Your task to perform on an android device: open a bookmark in the chrome app Image 0: 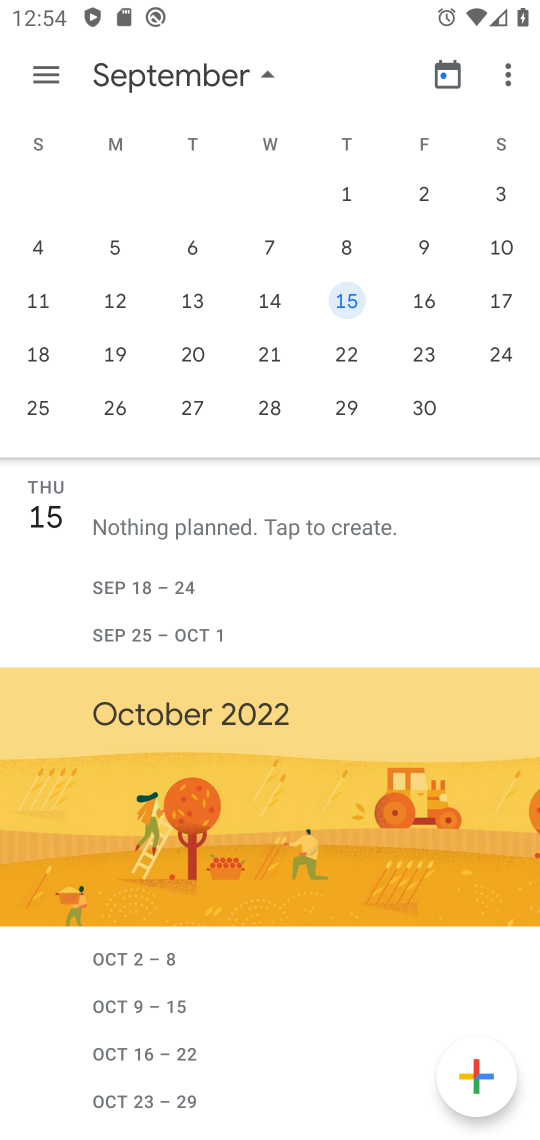
Step 0: drag from (253, 717) to (303, 441)
Your task to perform on an android device: open a bookmark in the chrome app Image 1: 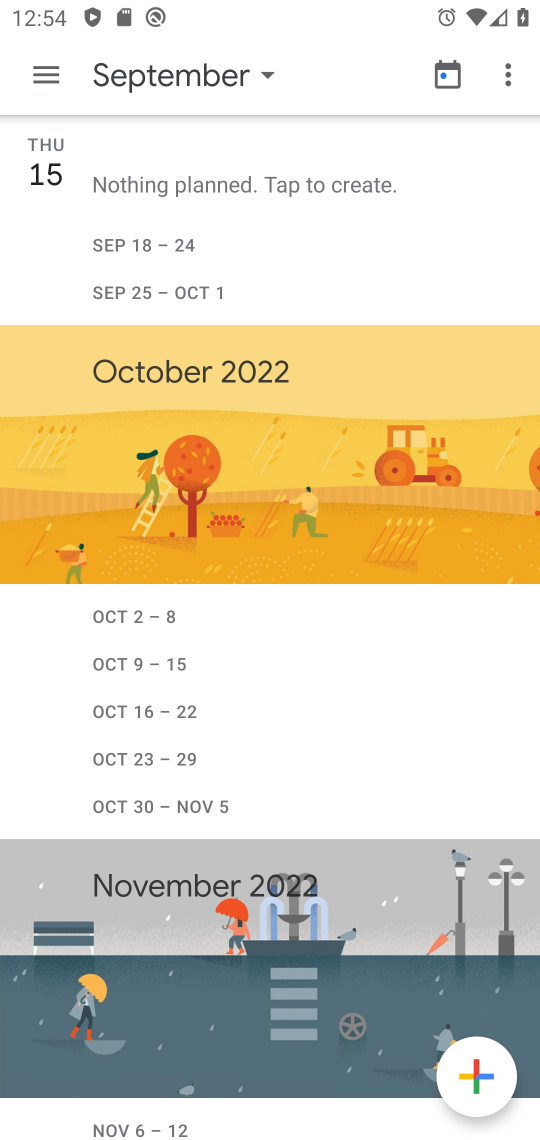
Step 1: press home button
Your task to perform on an android device: open a bookmark in the chrome app Image 2: 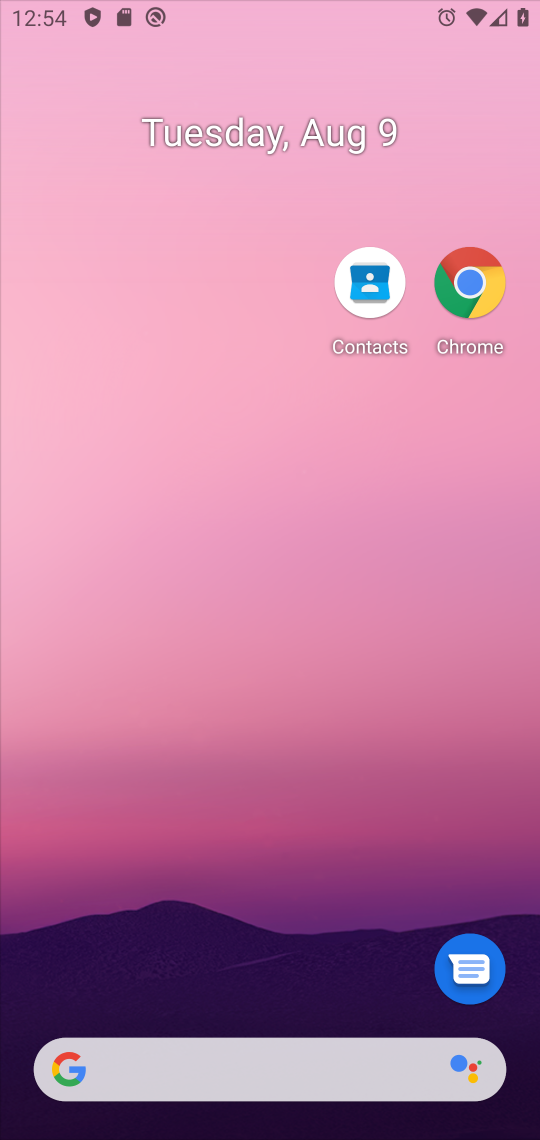
Step 2: drag from (263, 995) to (432, 321)
Your task to perform on an android device: open a bookmark in the chrome app Image 3: 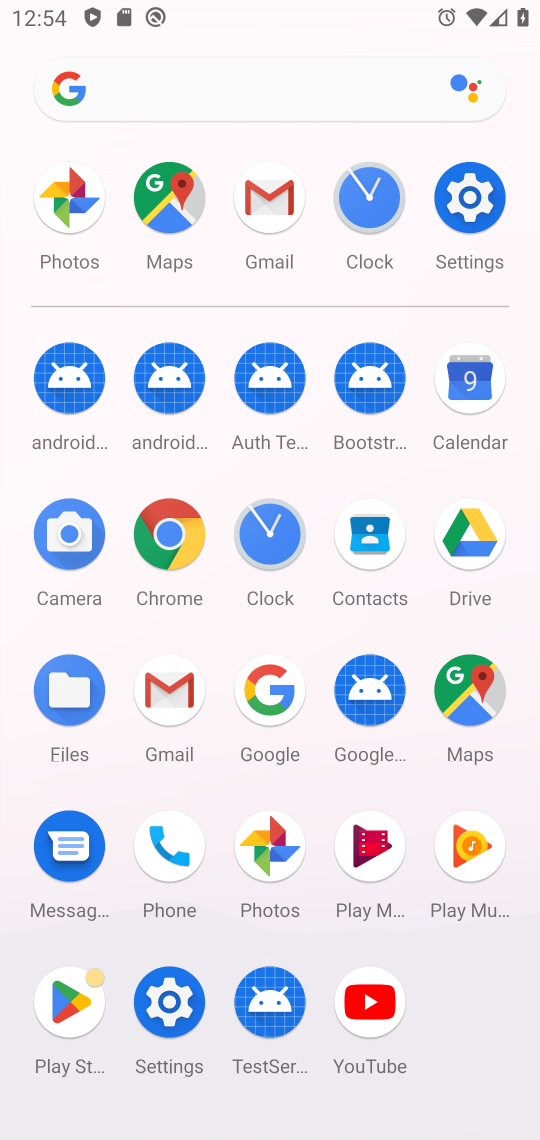
Step 3: click (164, 531)
Your task to perform on an android device: open a bookmark in the chrome app Image 4: 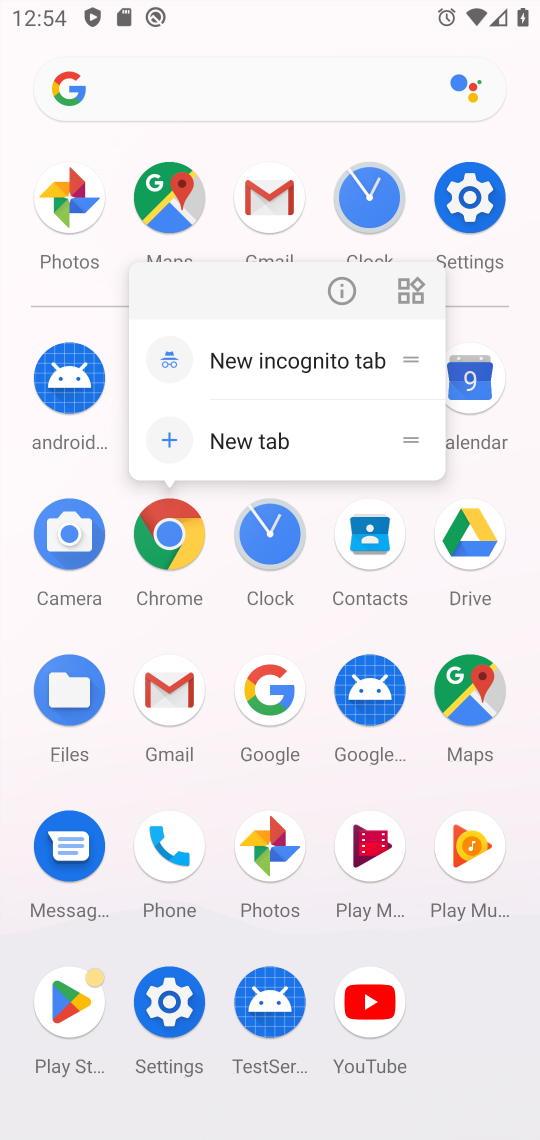
Step 4: click (336, 299)
Your task to perform on an android device: open a bookmark in the chrome app Image 5: 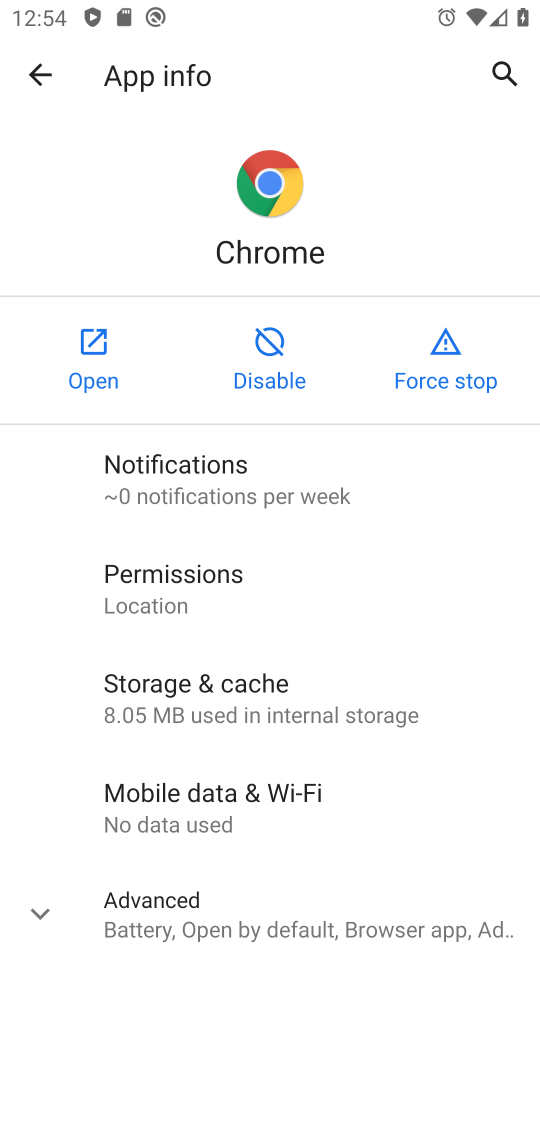
Step 5: click (66, 370)
Your task to perform on an android device: open a bookmark in the chrome app Image 6: 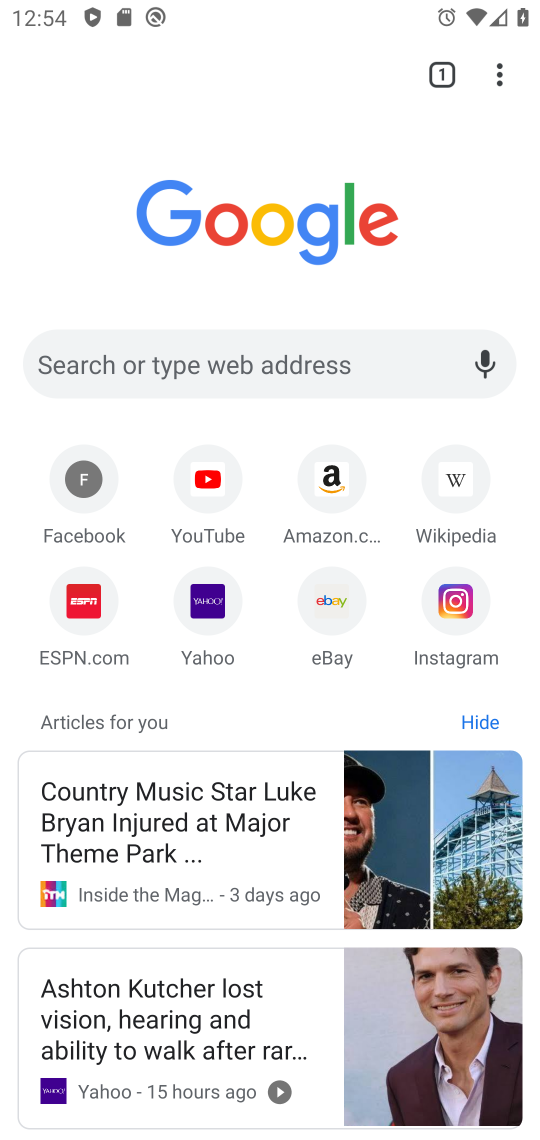
Step 6: drag from (291, 653) to (355, 0)
Your task to perform on an android device: open a bookmark in the chrome app Image 7: 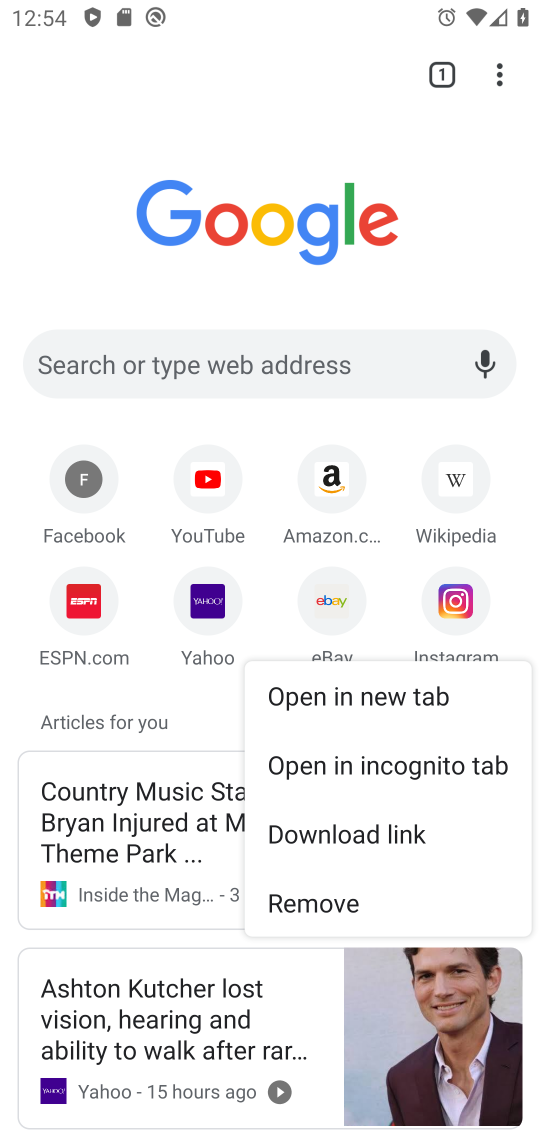
Step 7: click (206, 706)
Your task to perform on an android device: open a bookmark in the chrome app Image 8: 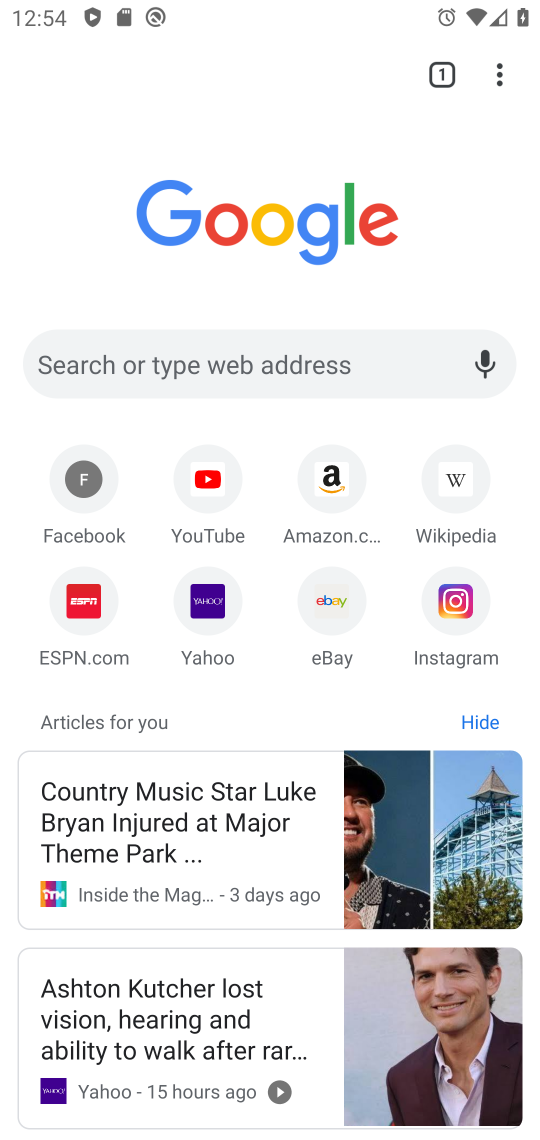
Step 8: drag from (277, 563) to (331, 67)
Your task to perform on an android device: open a bookmark in the chrome app Image 9: 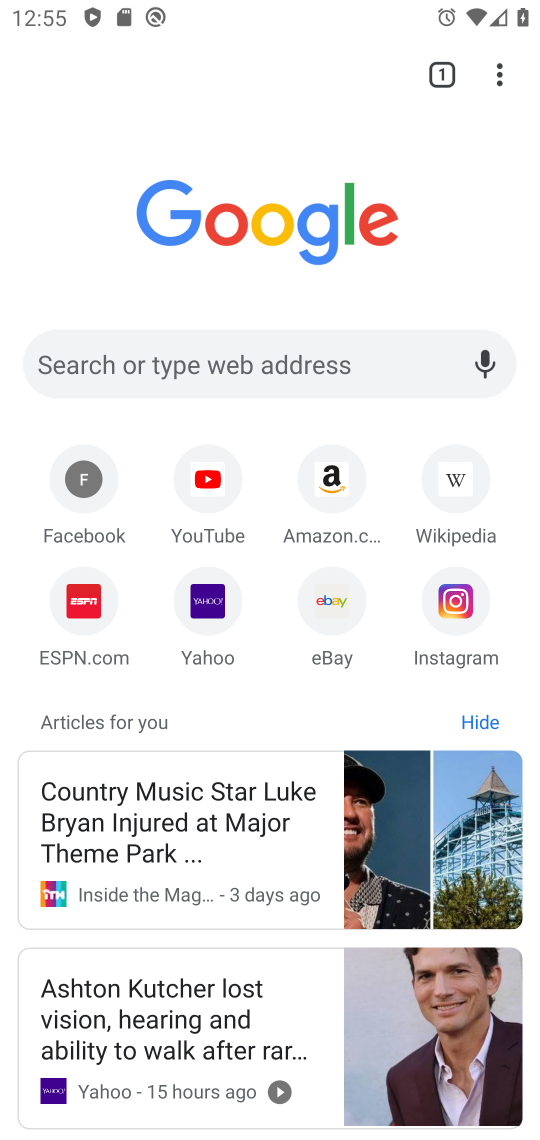
Step 9: drag from (498, 61) to (304, 287)
Your task to perform on an android device: open a bookmark in the chrome app Image 10: 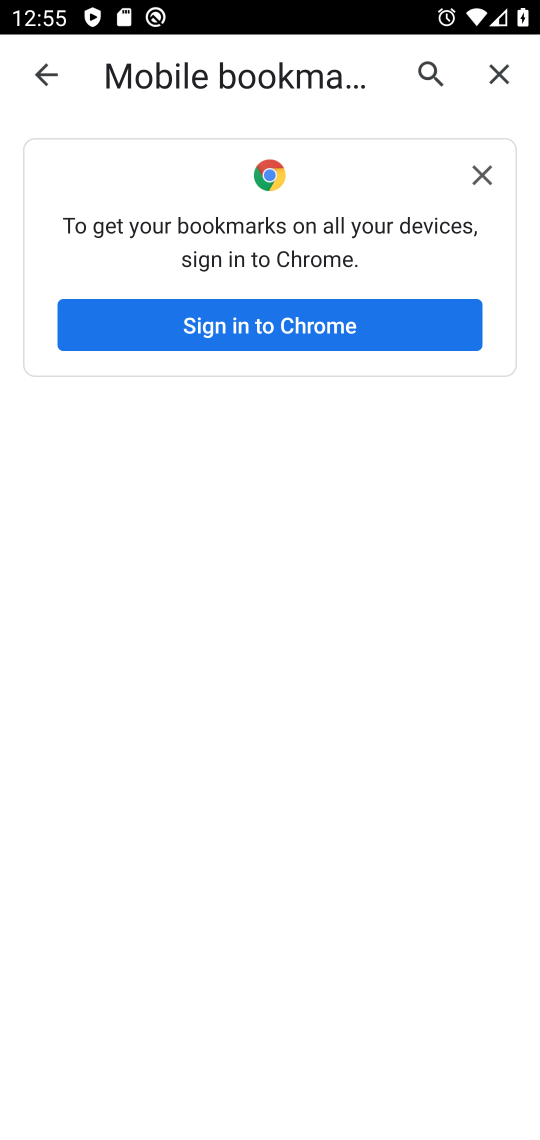
Step 10: drag from (341, 740) to (354, 371)
Your task to perform on an android device: open a bookmark in the chrome app Image 11: 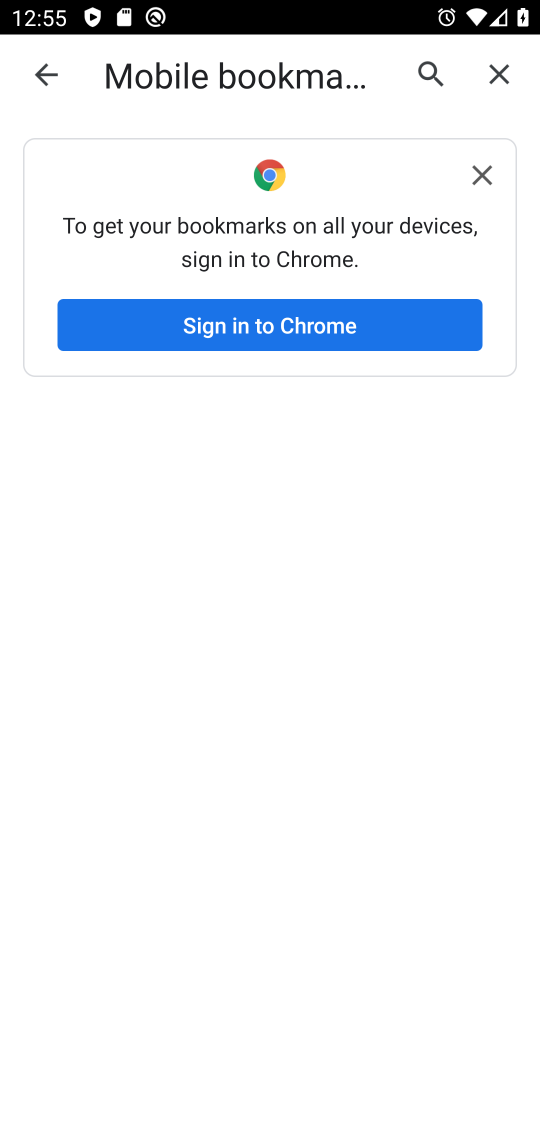
Step 11: click (484, 165)
Your task to perform on an android device: open a bookmark in the chrome app Image 12: 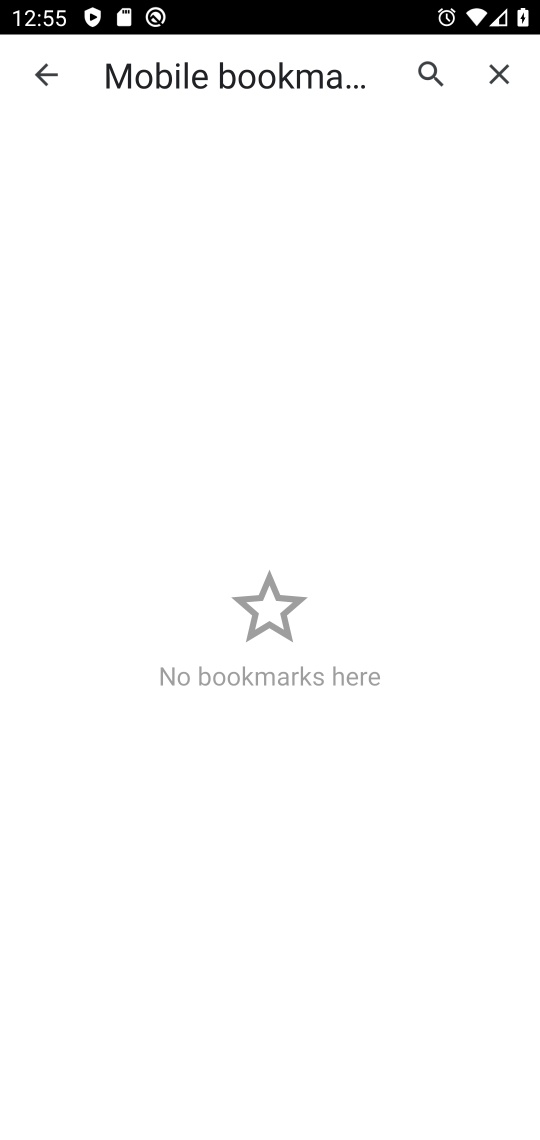
Step 12: task complete